Your task to perform on an android device: open chrome privacy settings Image 0: 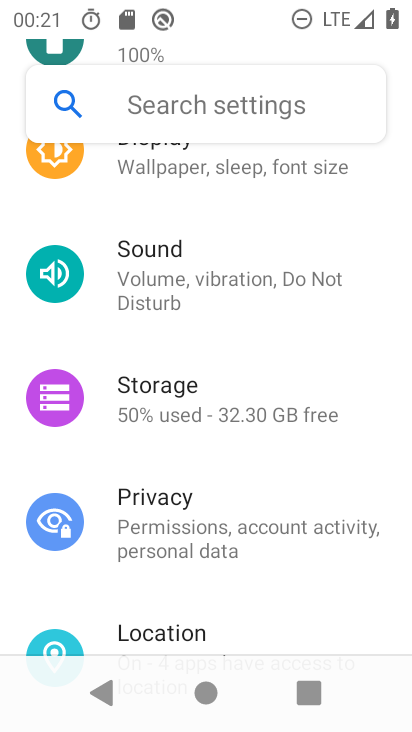
Step 0: press home button
Your task to perform on an android device: open chrome privacy settings Image 1: 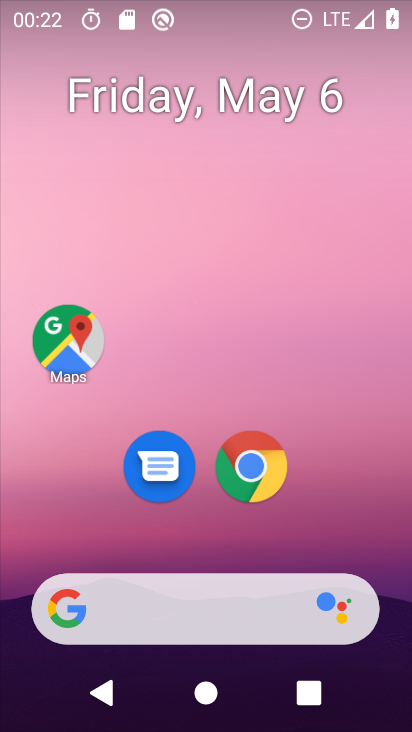
Step 1: click (253, 464)
Your task to perform on an android device: open chrome privacy settings Image 2: 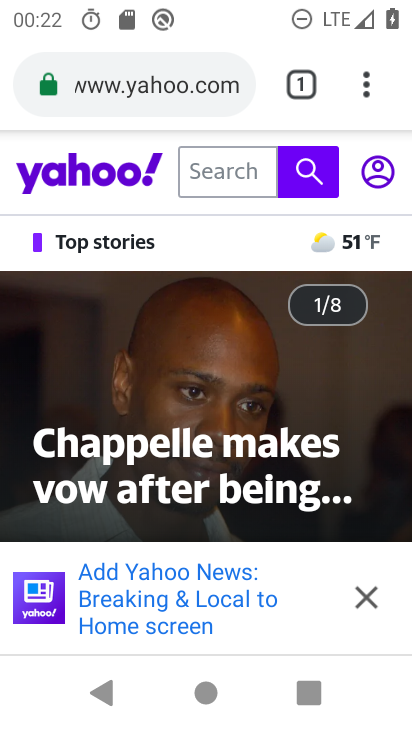
Step 2: click (309, 86)
Your task to perform on an android device: open chrome privacy settings Image 3: 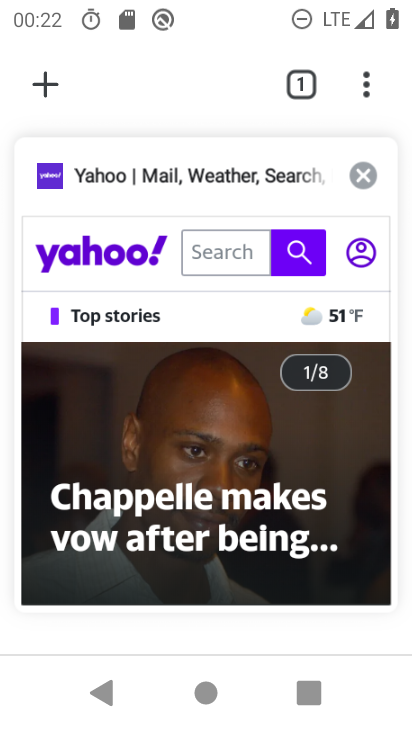
Step 3: click (363, 251)
Your task to perform on an android device: open chrome privacy settings Image 4: 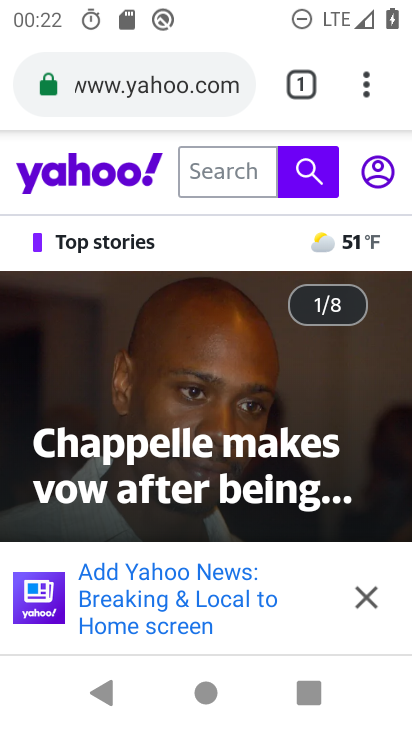
Step 4: click (293, 84)
Your task to perform on an android device: open chrome privacy settings Image 5: 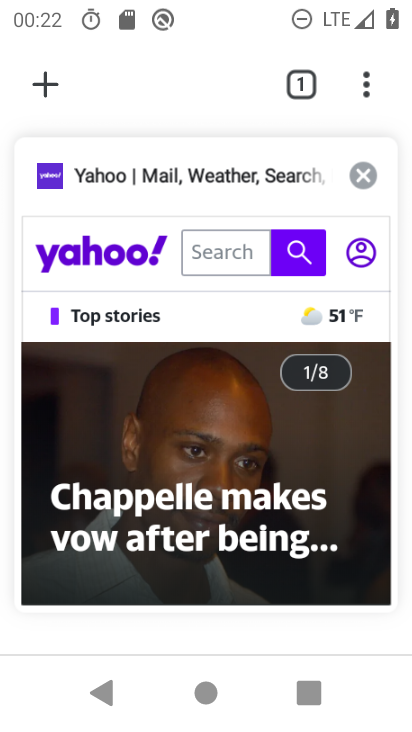
Step 5: click (370, 177)
Your task to perform on an android device: open chrome privacy settings Image 6: 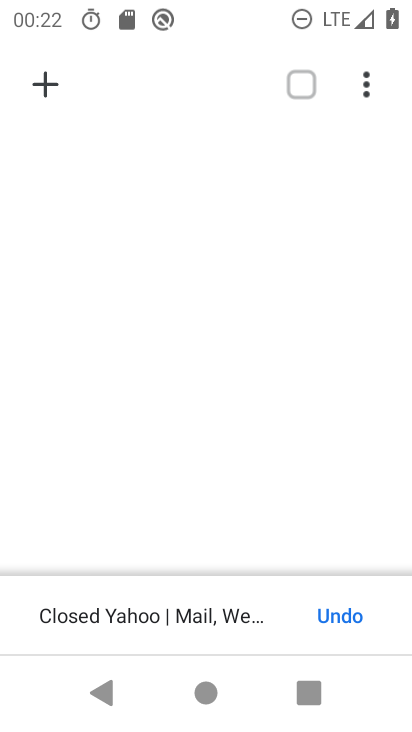
Step 6: click (371, 84)
Your task to perform on an android device: open chrome privacy settings Image 7: 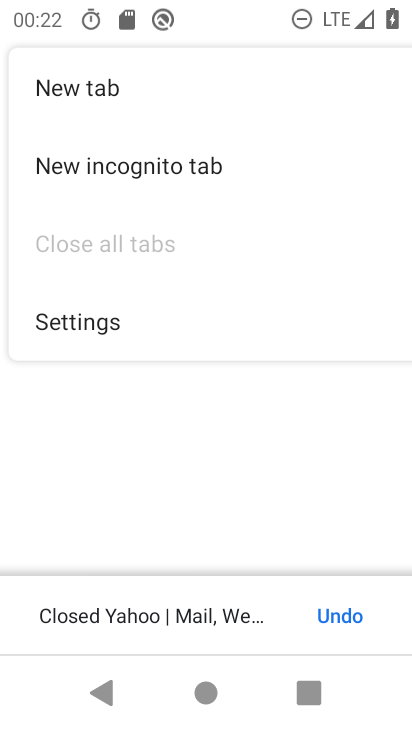
Step 7: click (109, 326)
Your task to perform on an android device: open chrome privacy settings Image 8: 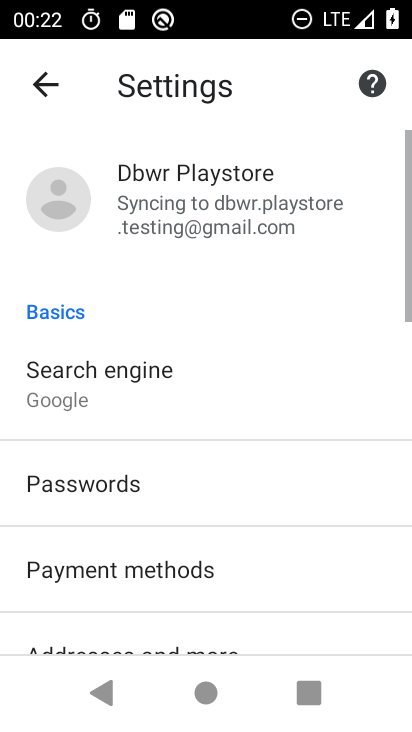
Step 8: drag from (131, 587) to (134, 242)
Your task to perform on an android device: open chrome privacy settings Image 9: 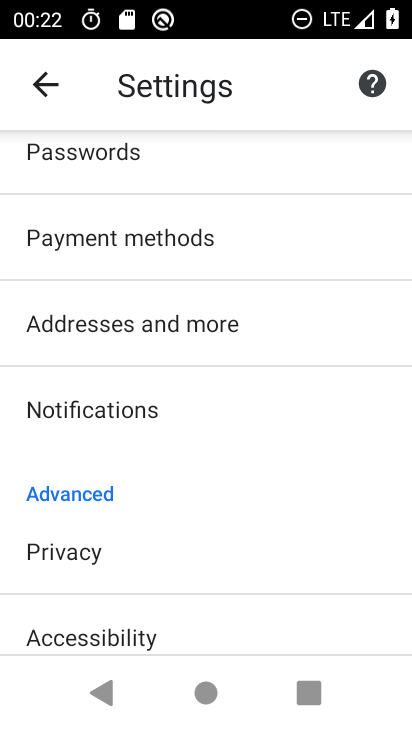
Step 9: drag from (118, 612) to (162, 273)
Your task to perform on an android device: open chrome privacy settings Image 10: 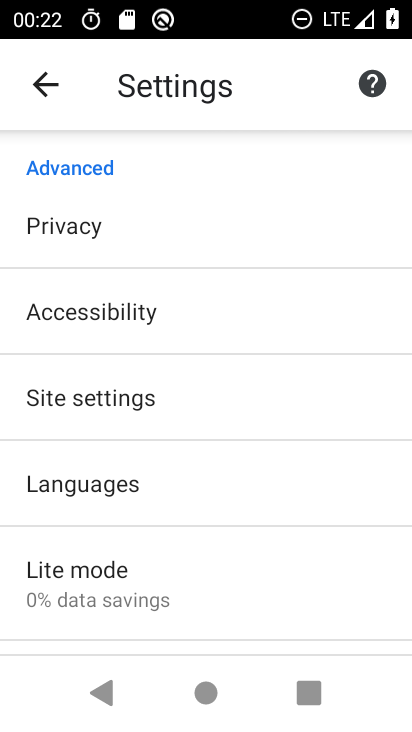
Step 10: click (99, 224)
Your task to perform on an android device: open chrome privacy settings Image 11: 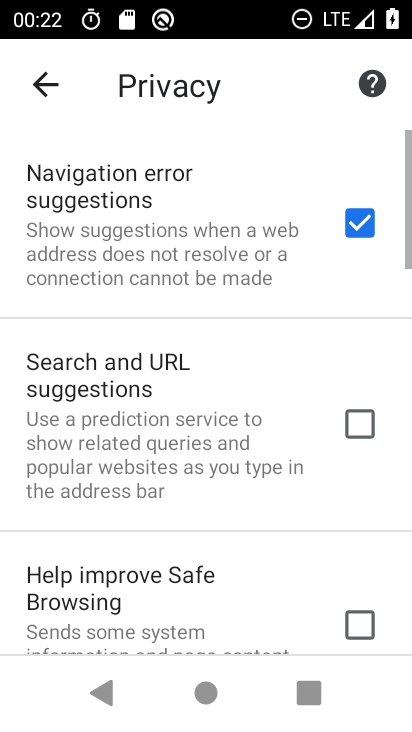
Step 11: task complete